Your task to perform on an android device: Search for hotels in London Image 0: 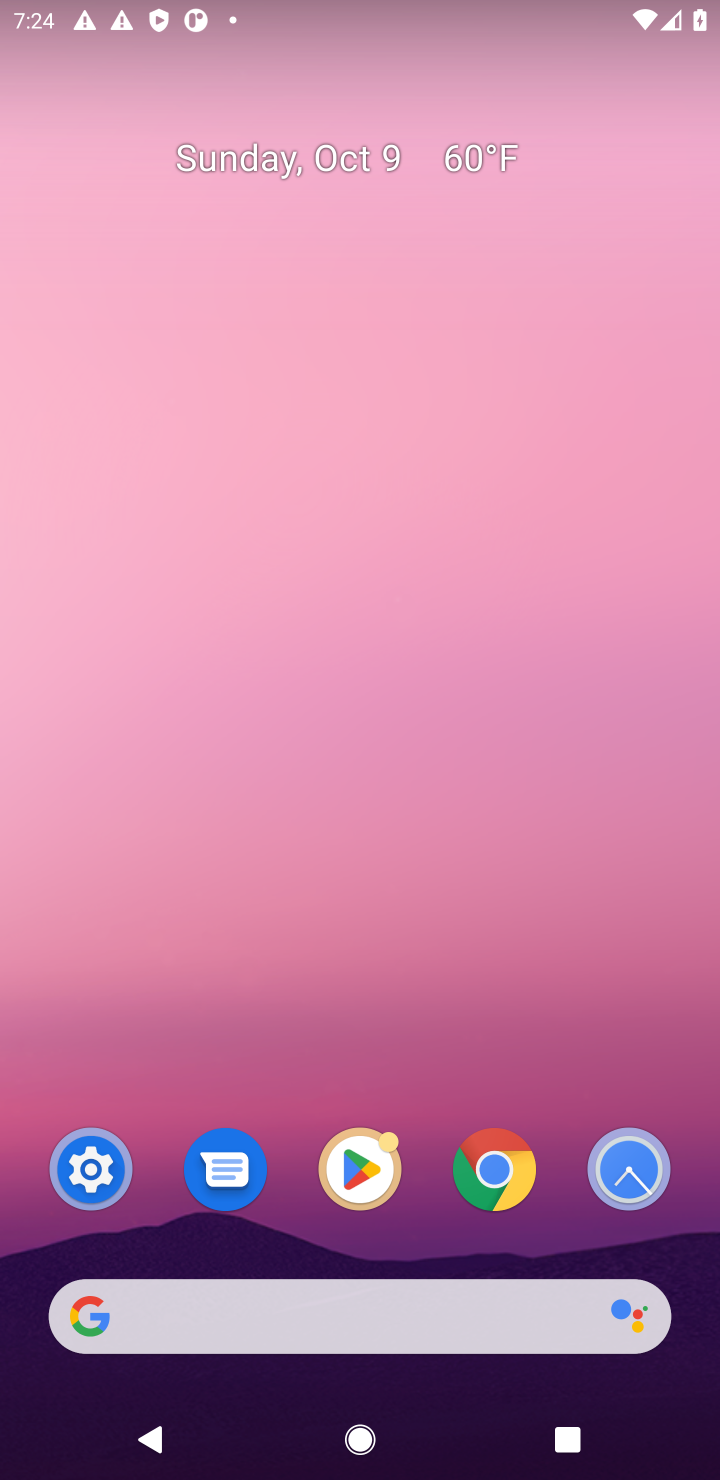
Step 0: drag from (405, 1114) to (87, 444)
Your task to perform on an android device: Search for hotels in London Image 1: 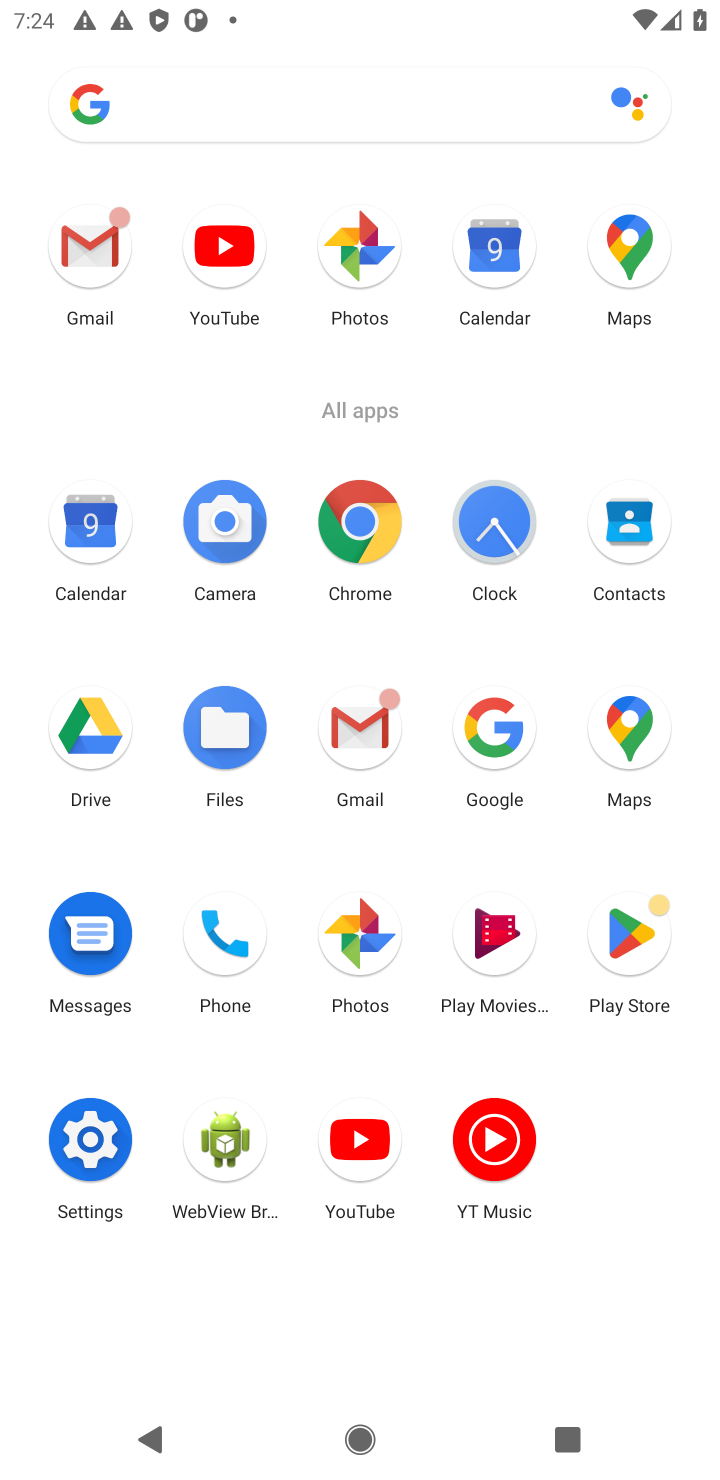
Step 1: click (363, 535)
Your task to perform on an android device: Search for hotels in London Image 2: 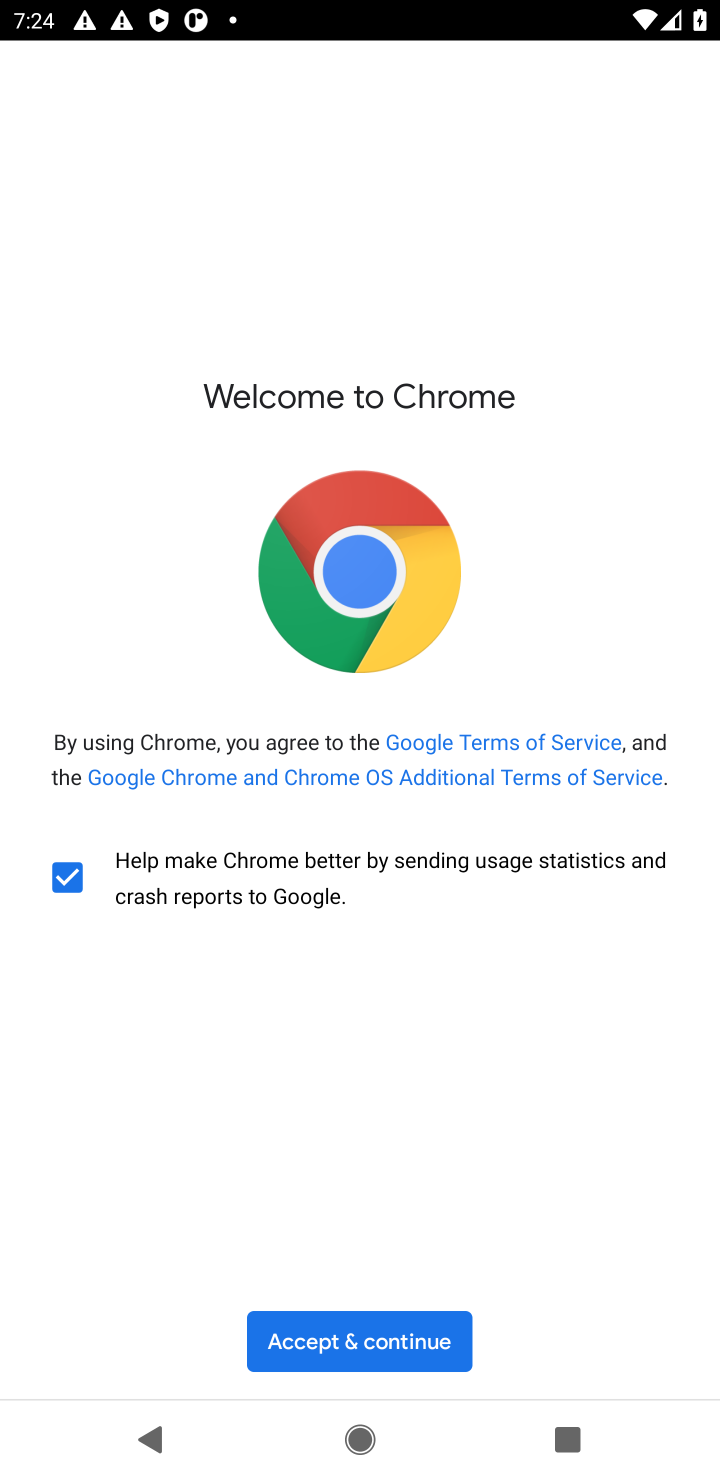
Step 2: click (401, 1313)
Your task to perform on an android device: Search for hotels in London Image 3: 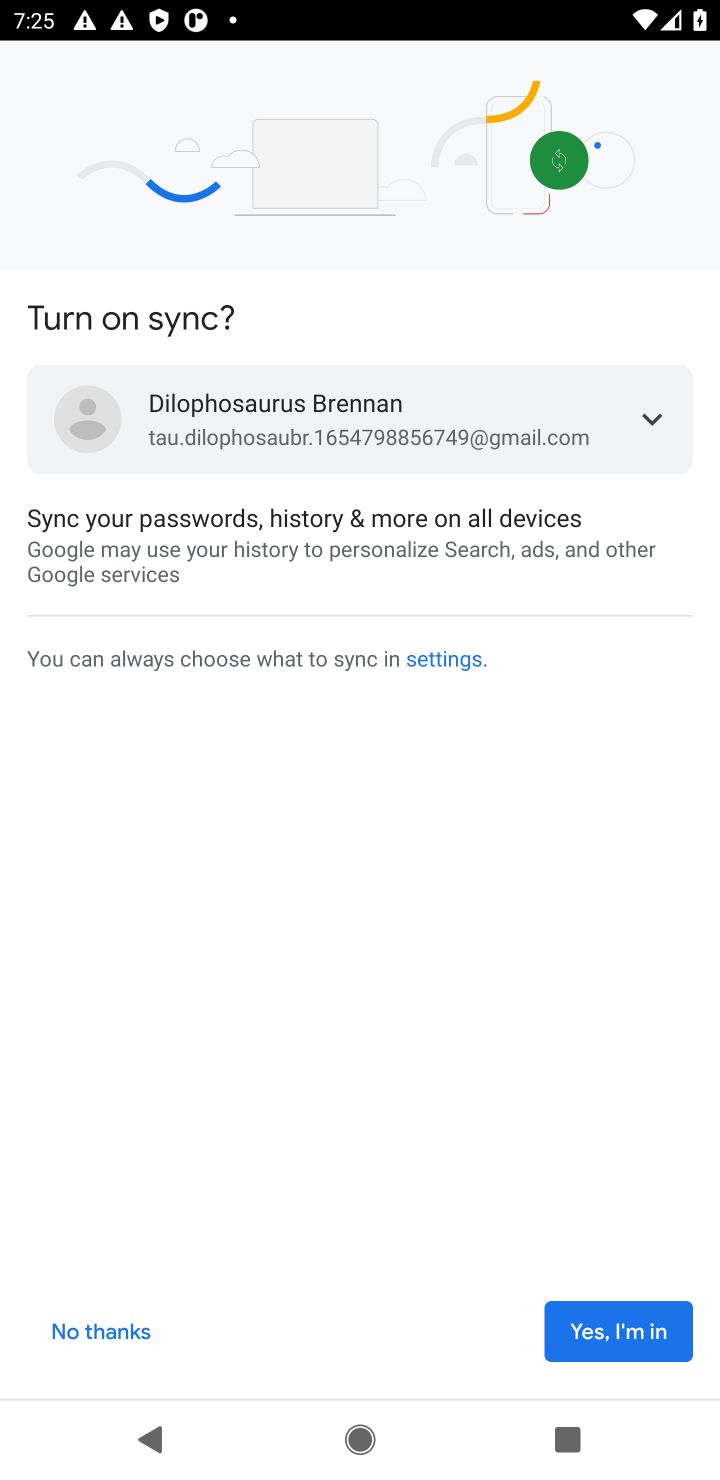
Step 3: click (633, 1347)
Your task to perform on an android device: Search for hotels in London Image 4: 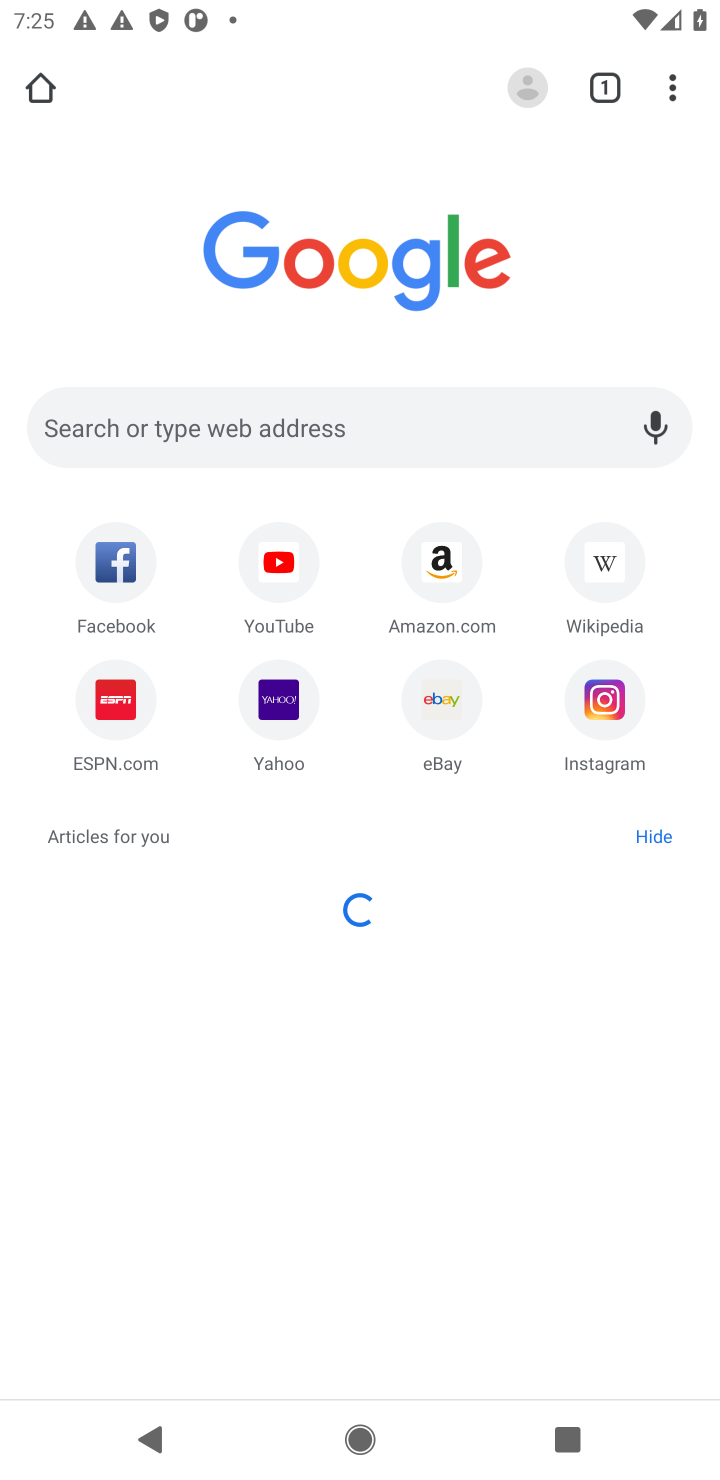
Step 4: click (439, 430)
Your task to perform on an android device: Search for hotels in London Image 5: 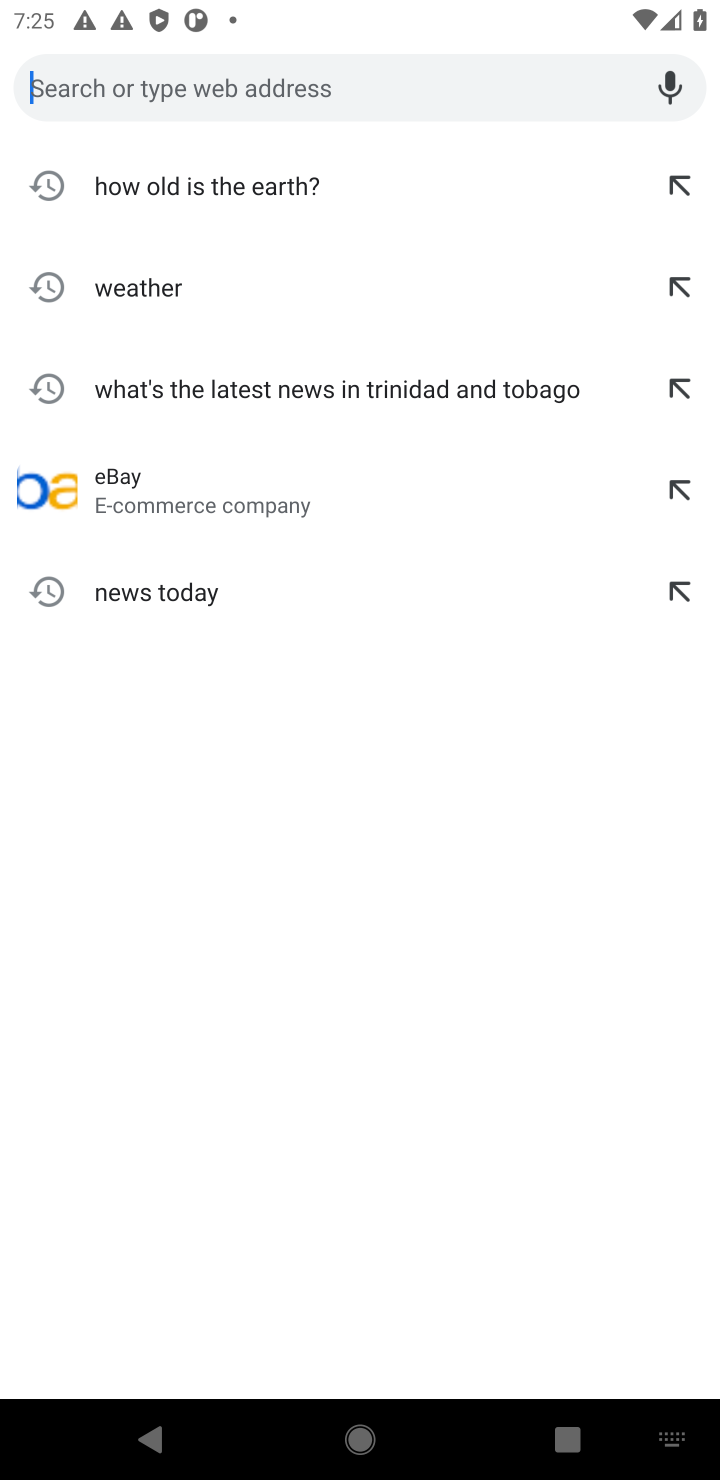
Step 5: type "hotel in london"
Your task to perform on an android device: Search for hotels in London Image 6: 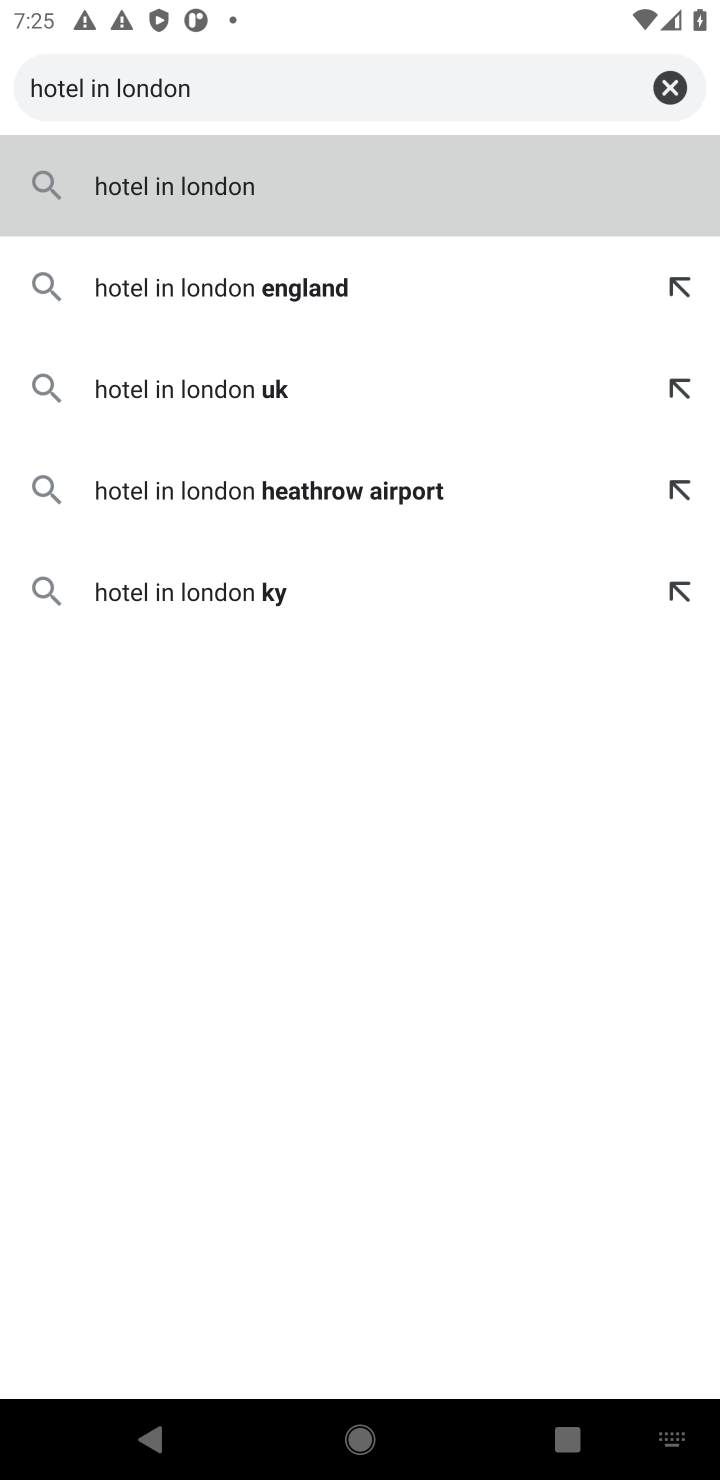
Step 6: press enter
Your task to perform on an android device: Search for hotels in London Image 7: 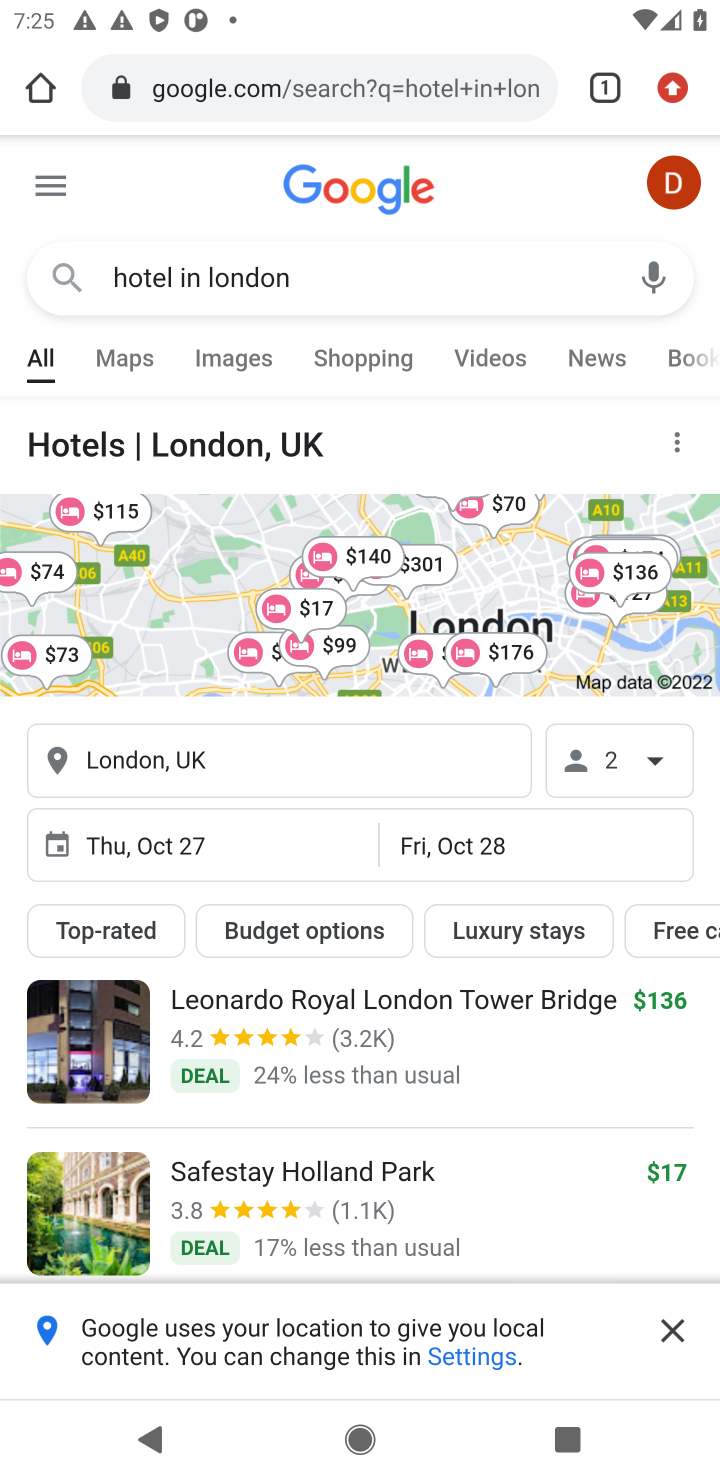
Step 7: task complete